Your task to perform on an android device: Open the web browser Image 0: 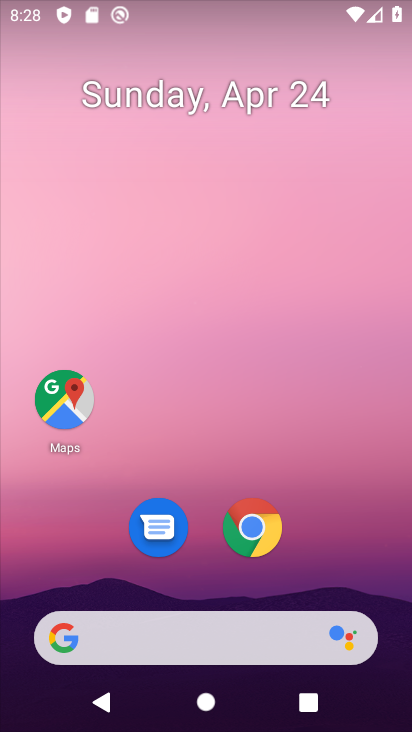
Step 0: click (255, 534)
Your task to perform on an android device: Open the web browser Image 1: 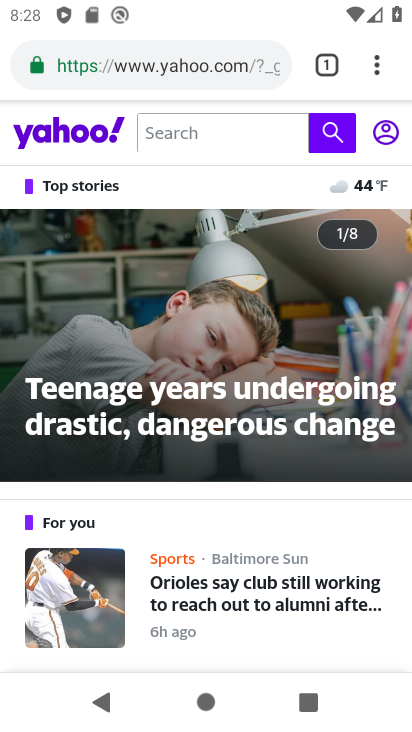
Step 1: task complete